Your task to perform on an android device: Clear all items from cart on walmart.com. Search for logitech g910 on walmart.com, select the first entry, and add it to the cart. Image 0: 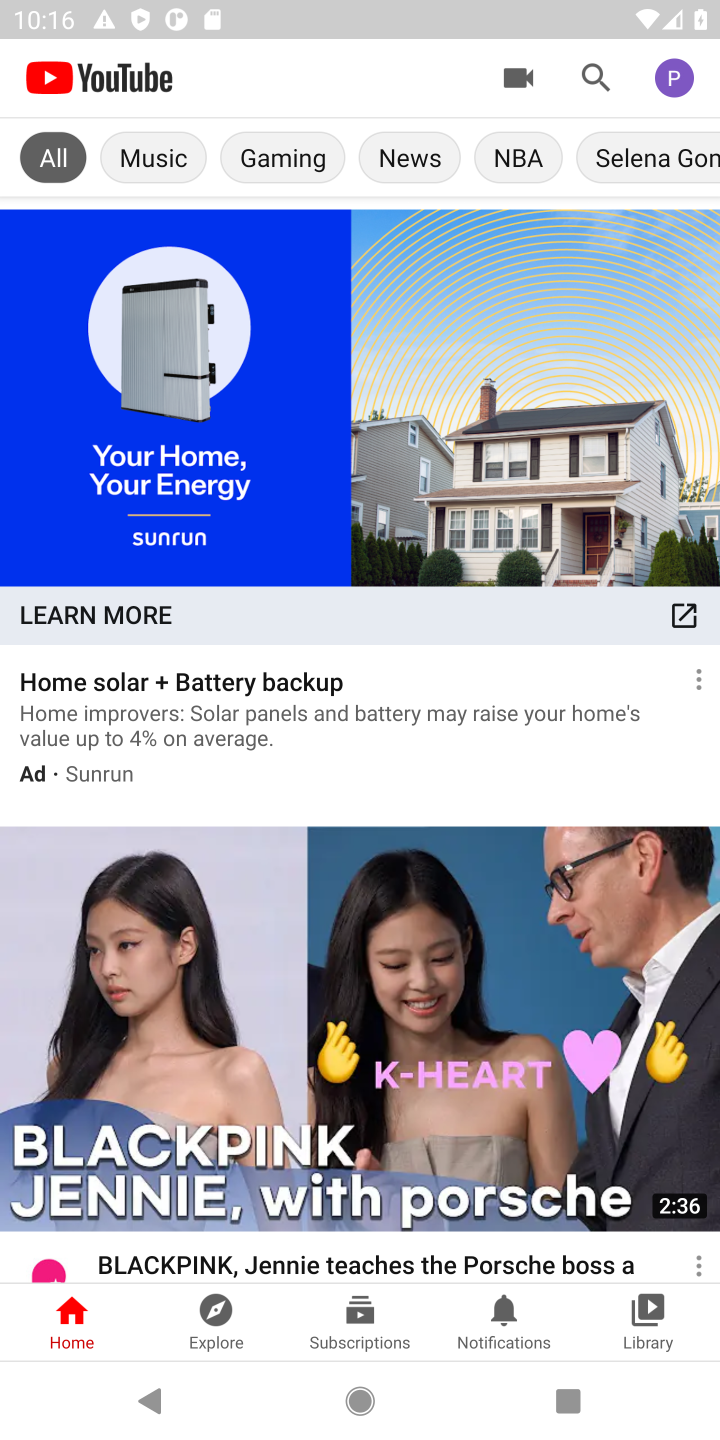
Step 0: press home button
Your task to perform on an android device: Clear all items from cart on walmart.com. Search for logitech g910 on walmart.com, select the first entry, and add it to the cart. Image 1: 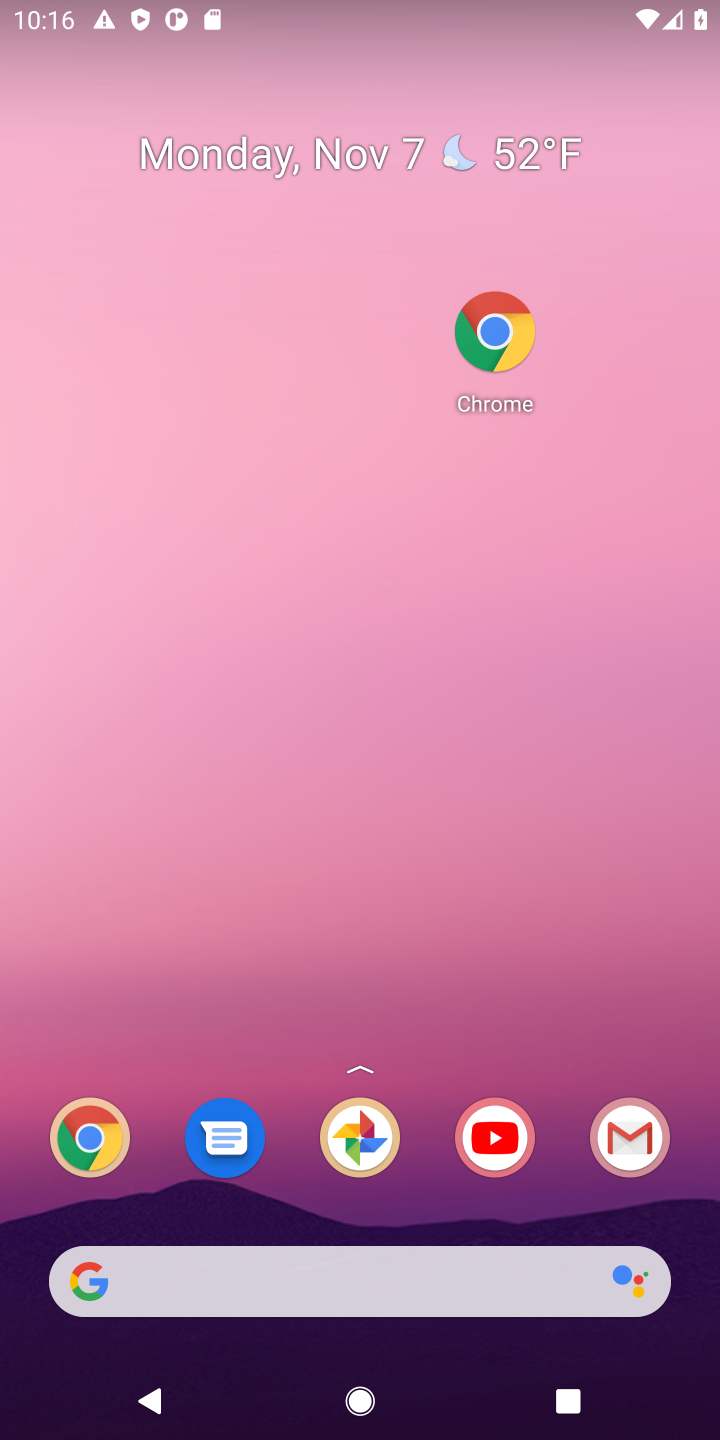
Step 1: drag from (409, 1217) to (220, 171)
Your task to perform on an android device: Clear all items from cart on walmart.com. Search for logitech g910 on walmart.com, select the first entry, and add it to the cart. Image 2: 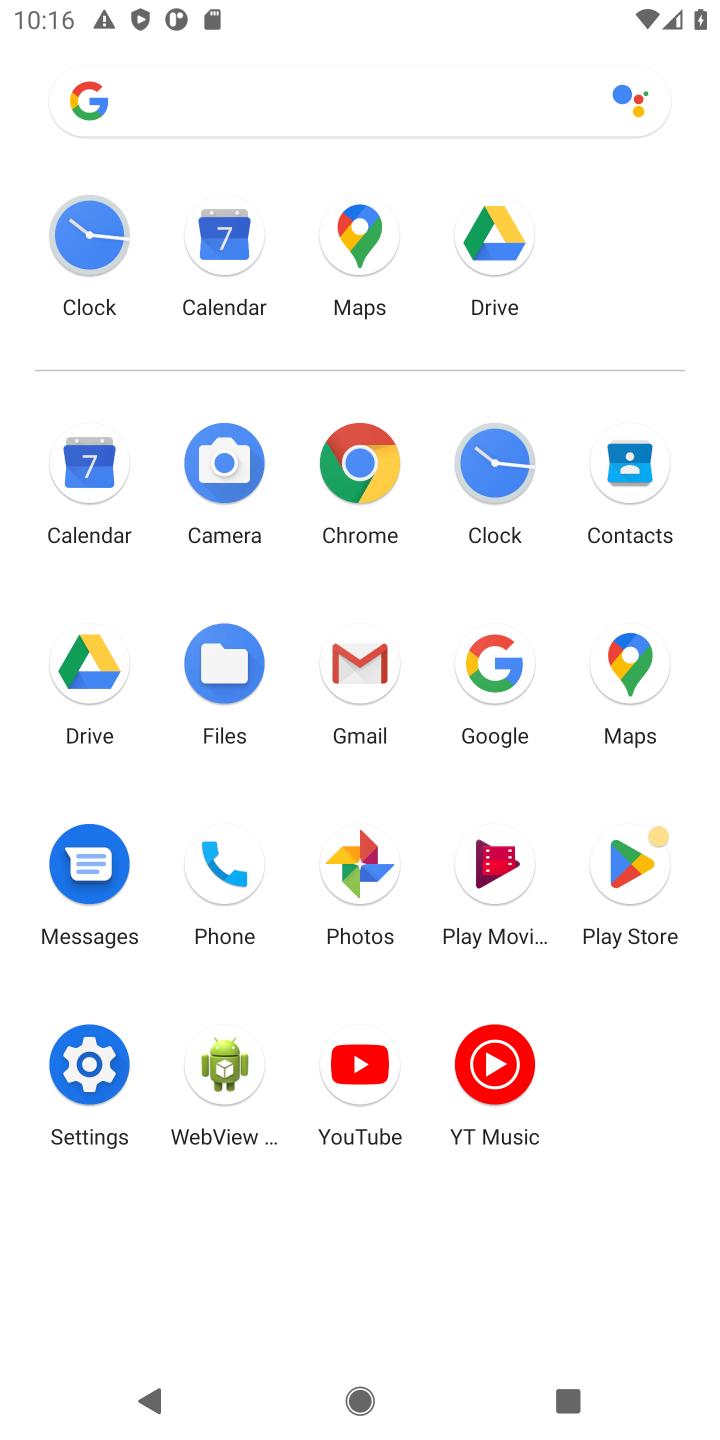
Step 2: click (354, 458)
Your task to perform on an android device: Clear all items from cart on walmart.com. Search for logitech g910 on walmart.com, select the first entry, and add it to the cart. Image 3: 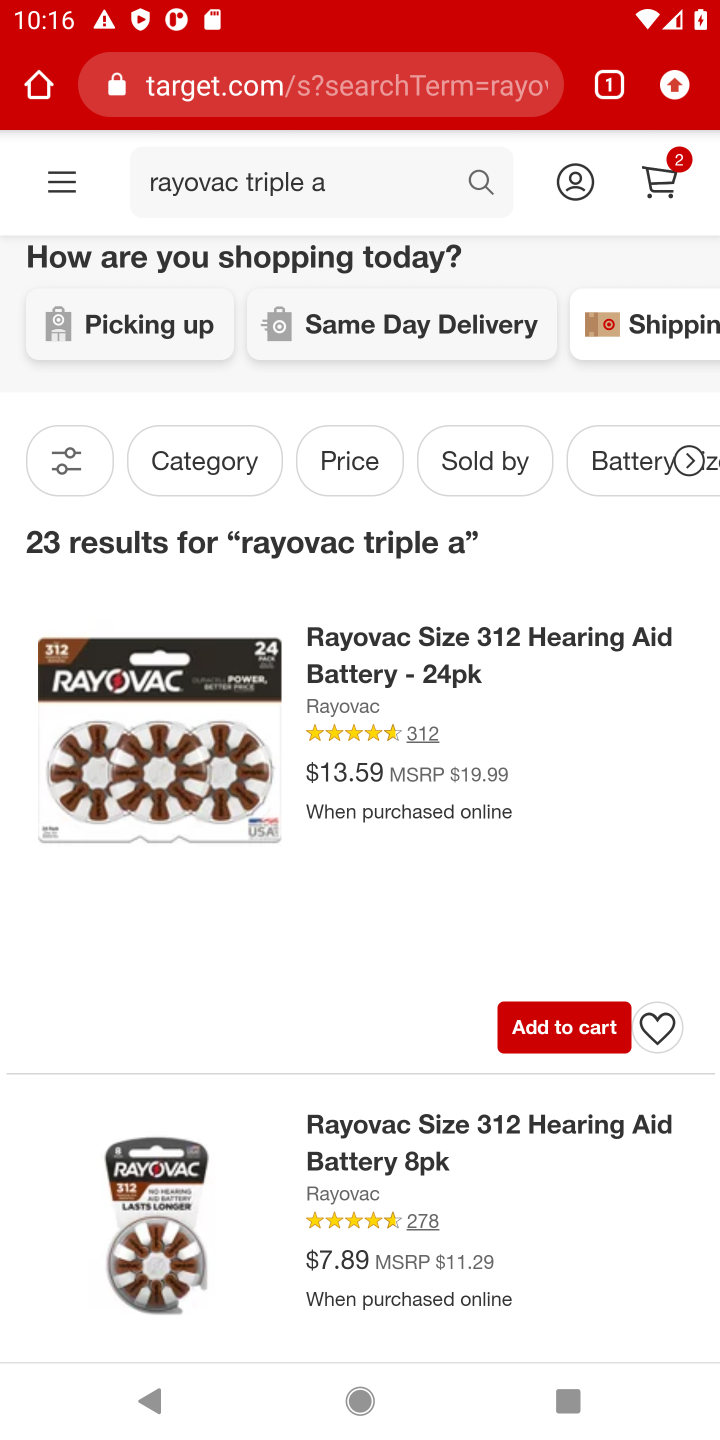
Step 3: click (398, 86)
Your task to perform on an android device: Clear all items from cart on walmart.com. Search for logitech g910 on walmart.com, select the first entry, and add it to the cart. Image 4: 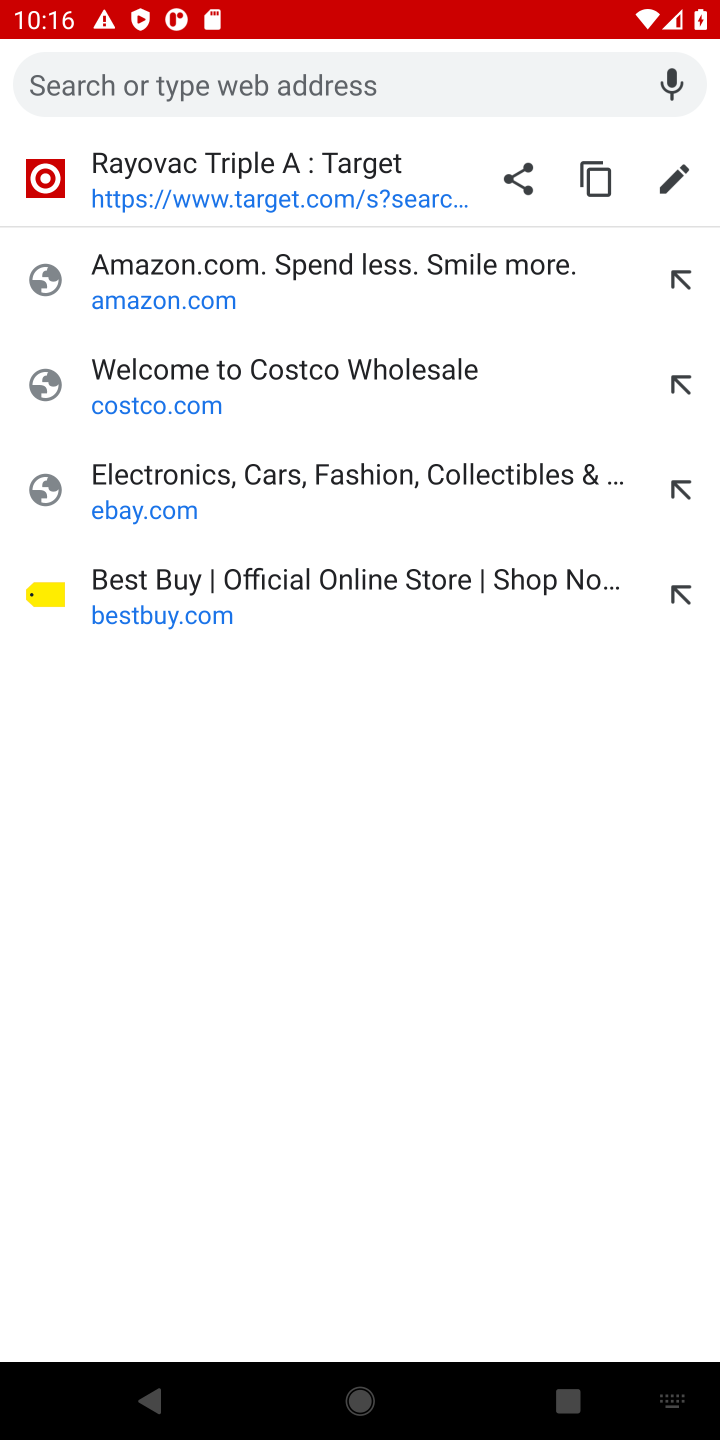
Step 4: type "walmart.com"
Your task to perform on an android device: Clear all items from cart on walmart.com. Search for logitech g910 on walmart.com, select the first entry, and add it to the cart. Image 5: 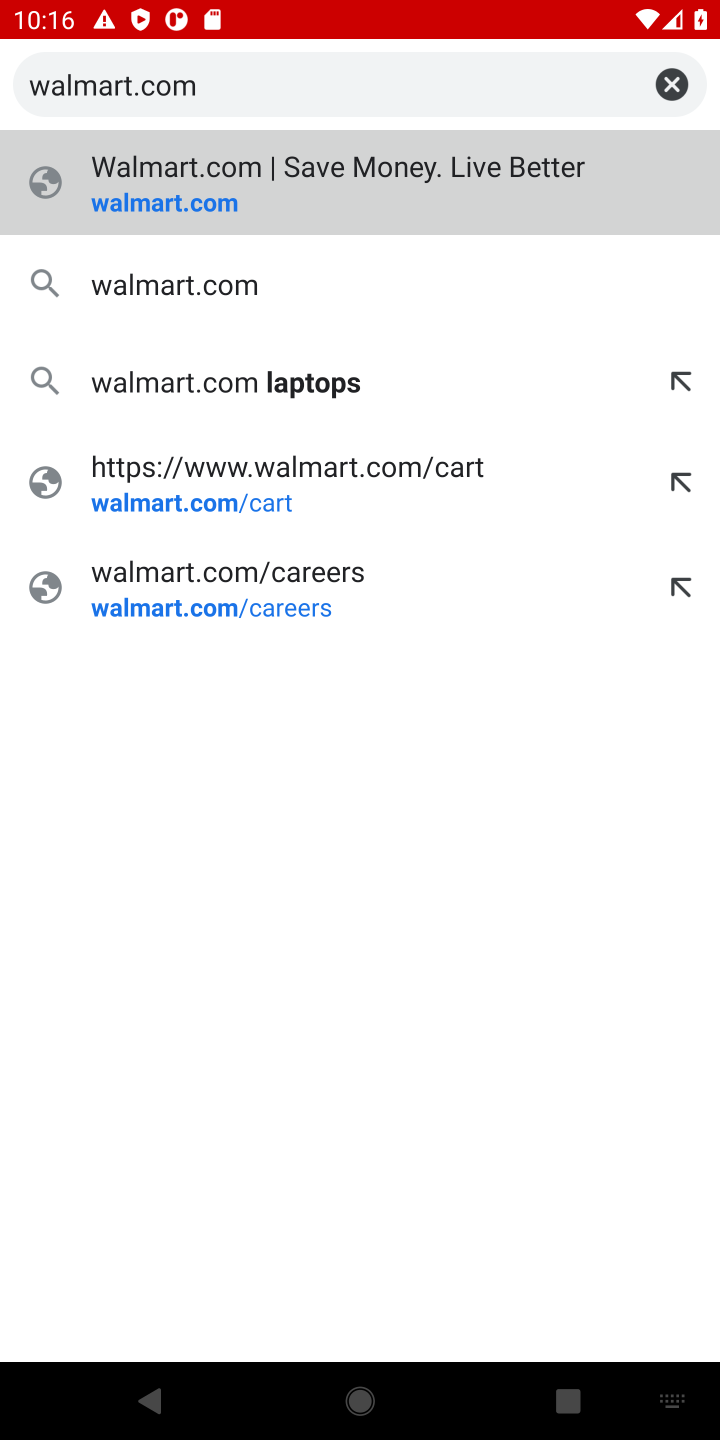
Step 5: press enter
Your task to perform on an android device: Clear all items from cart on walmart.com. Search for logitech g910 on walmart.com, select the first entry, and add it to the cart. Image 6: 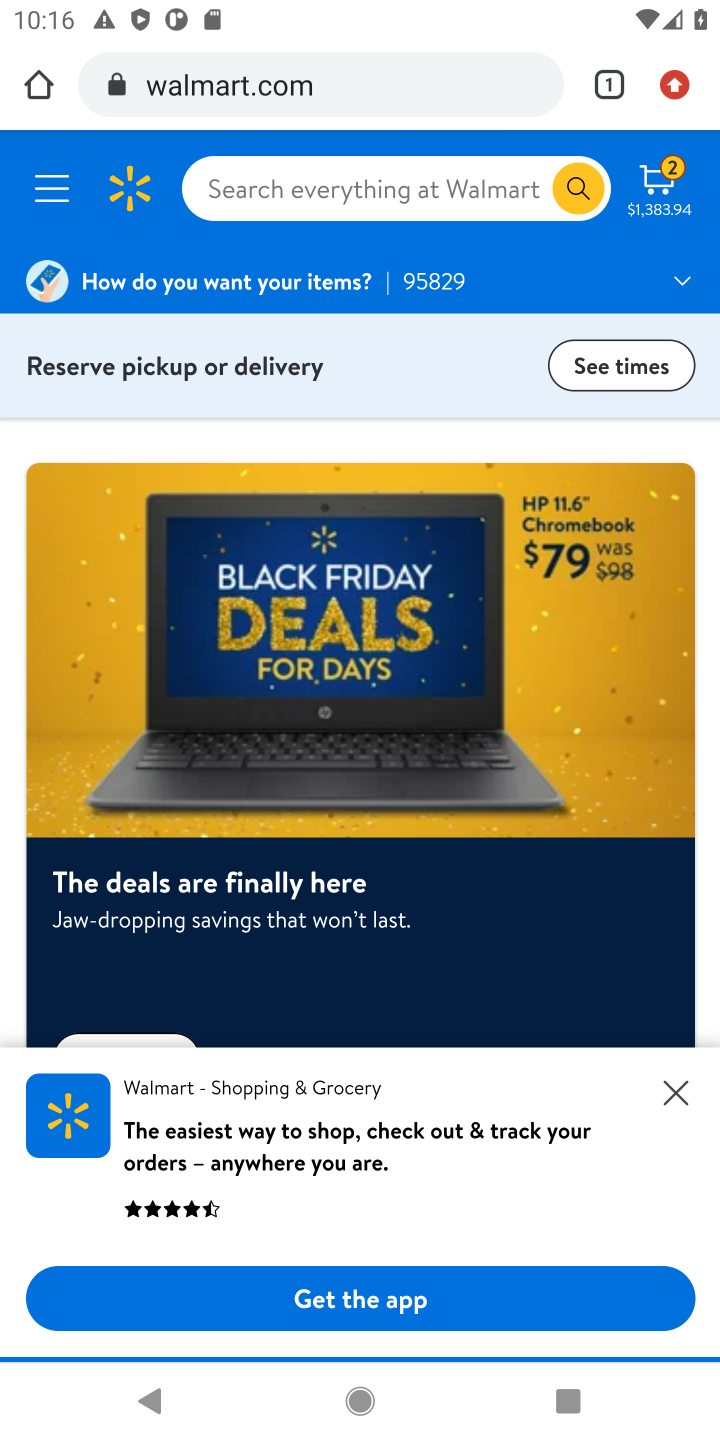
Step 6: click (658, 178)
Your task to perform on an android device: Clear all items from cart on walmart.com. Search for logitech g910 on walmart.com, select the first entry, and add it to the cart. Image 7: 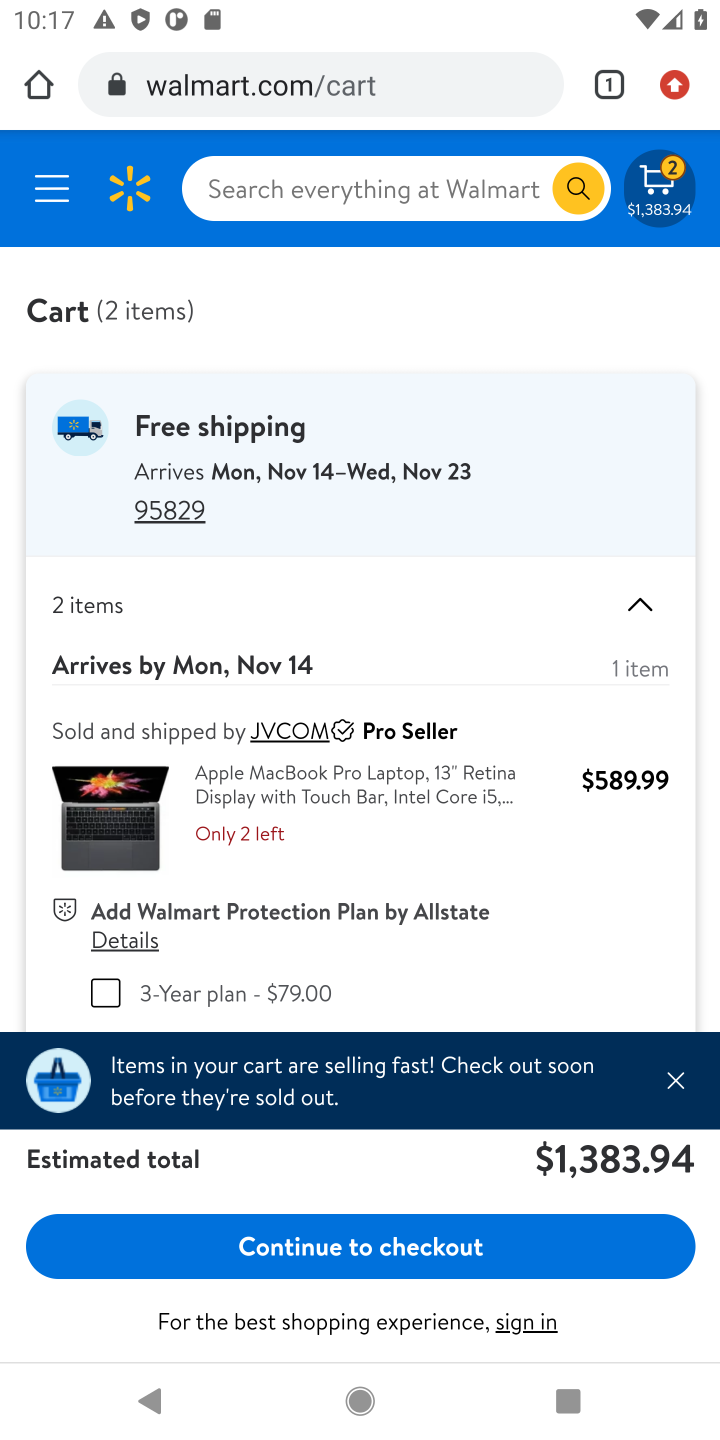
Step 7: drag from (365, 943) to (335, 373)
Your task to perform on an android device: Clear all items from cart on walmart.com. Search for logitech g910 on walmart.com, select the first entry, and add it to the cart. Image 8: 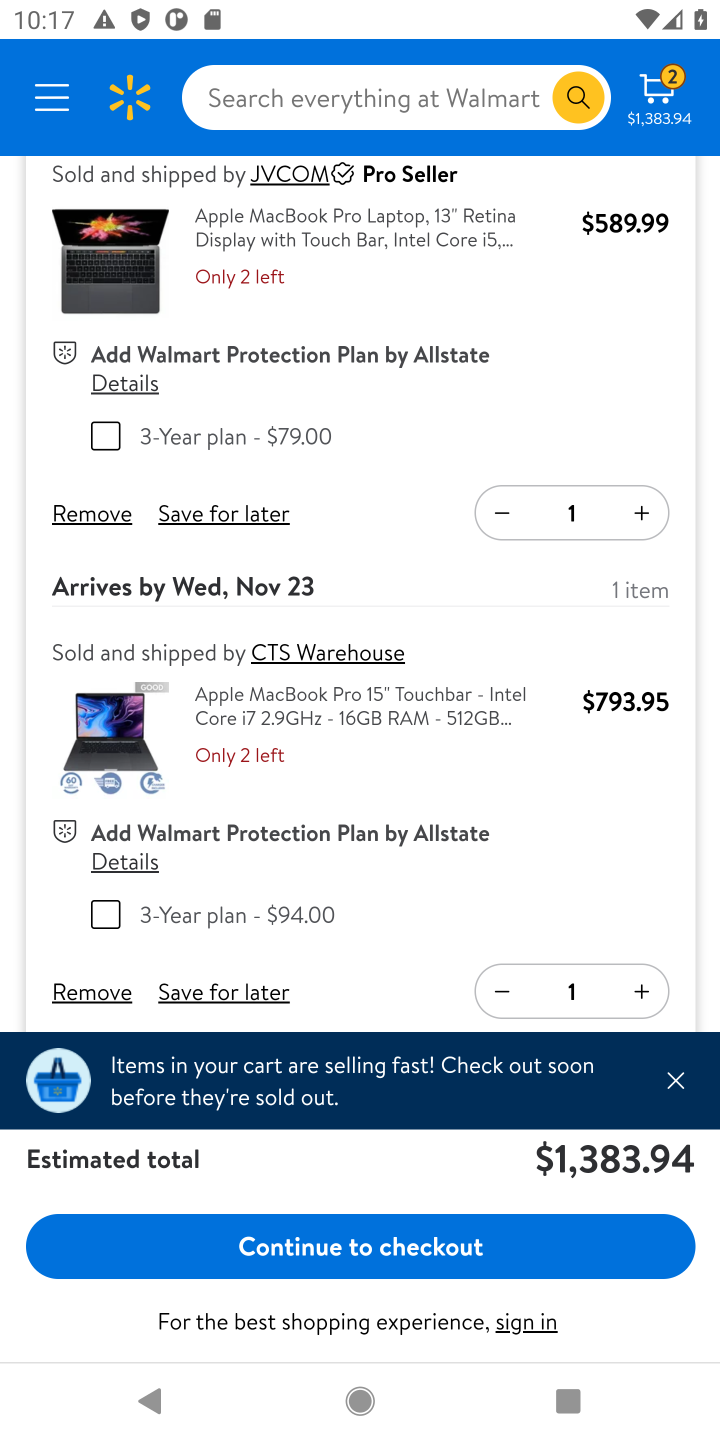
Step 8: click (100, 514)
Your task to perform on an android device: Clear all items from cart on walmart.com. Search for logitech g910 on walmart.com, select the first entry, and add it to the cart. Image 9: 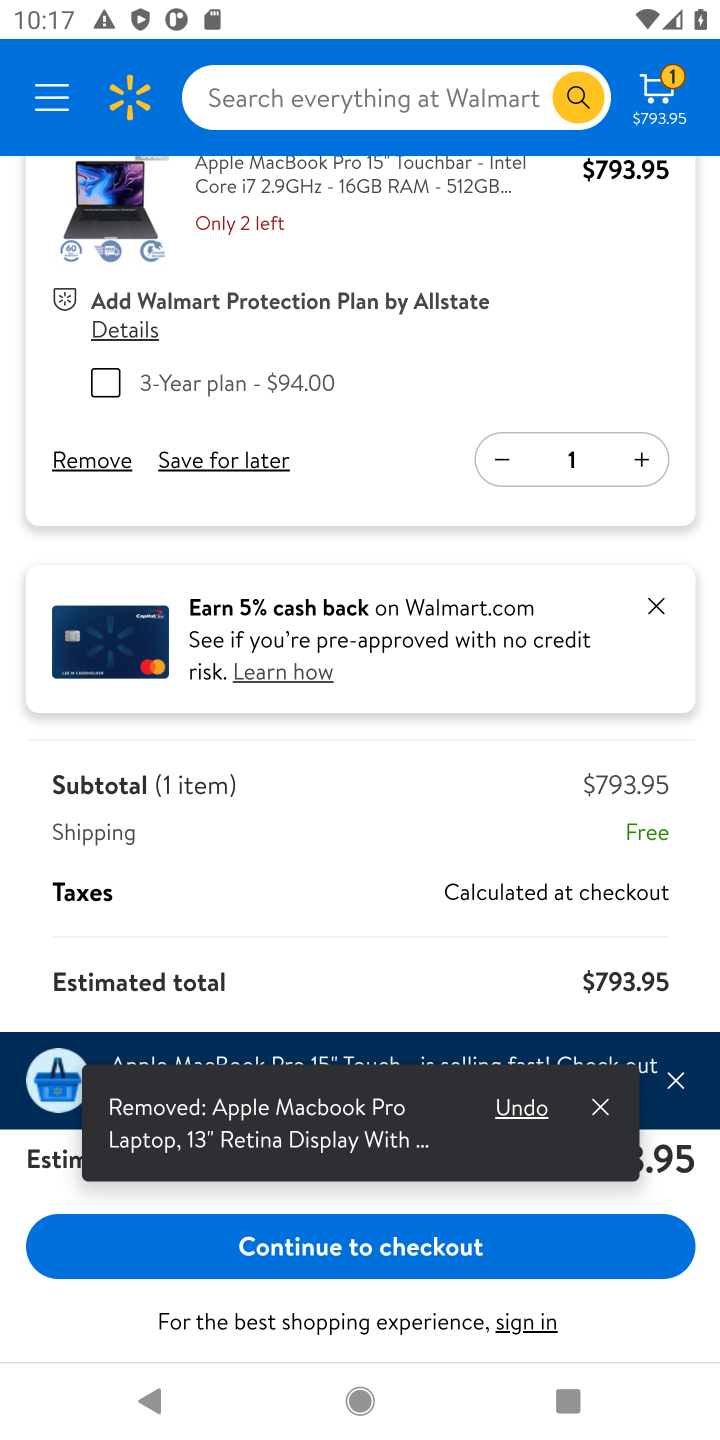
Step 9: click (111, 518)
Your task to perform on an android device: Clear all items from cart on walmart.com. Search for logitech g910 on walmart.com, select the first entry, and add it to the cart. Image 10: 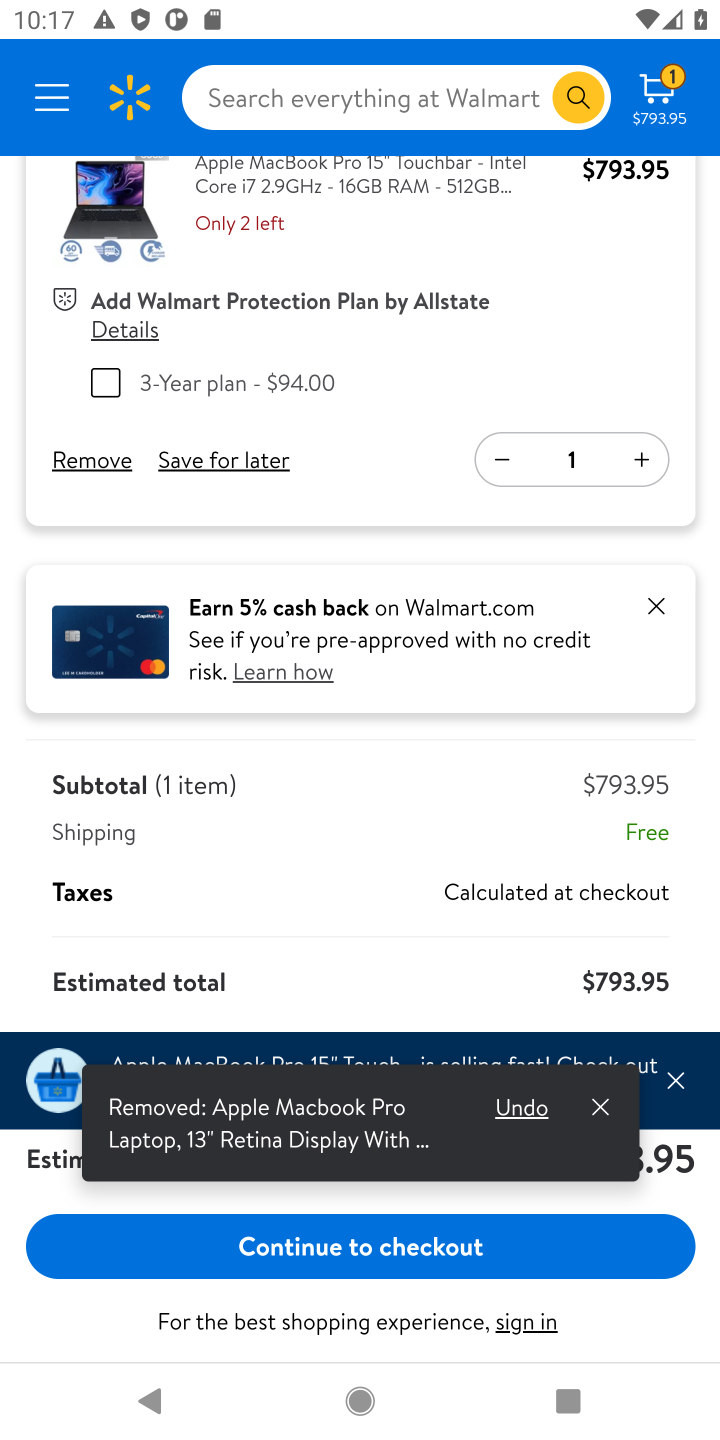
Step 10: click (111, 459)
Your task to perform on an android device: Clear all items from cart on walmart.com. Search for logitech g910 on walmart.com, select the first entry, and add it to the cart. Image 11: 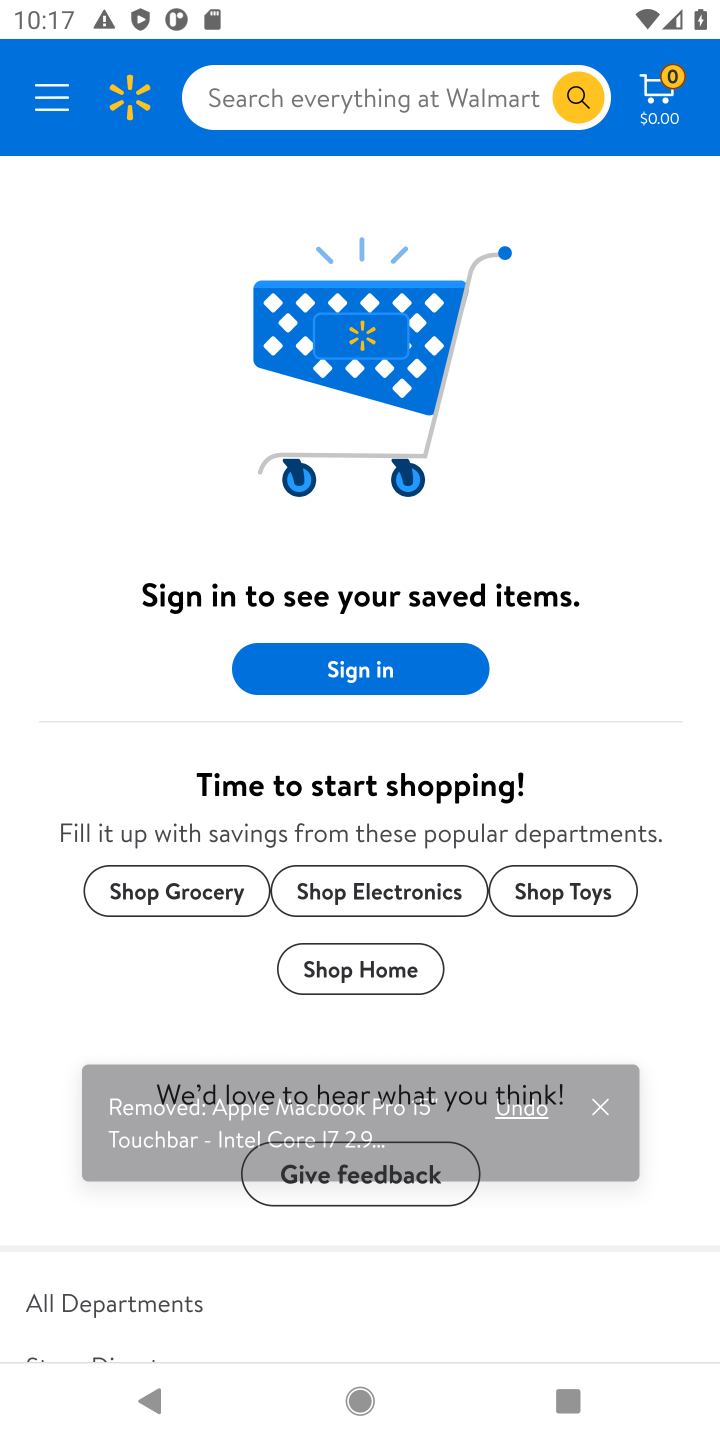
Step 11: click (454, 105)
Your task to perform on an android device: Clear all items from cart on walmart.com. Search for logitech g910 on walmart.com, select the first entry, and add it to the cart. Image 12: 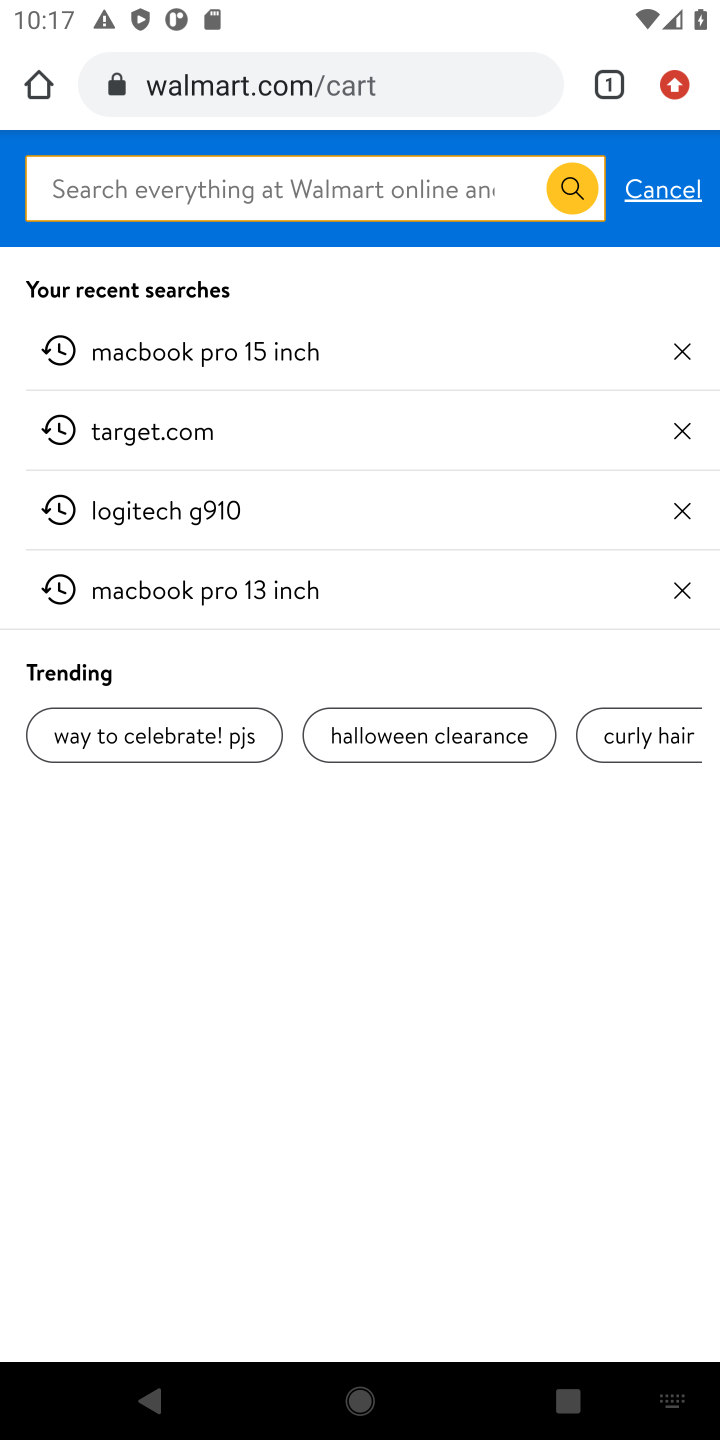
Step 12: type "logitech g910"
Your task to perform on an android device: Clear all items from cart on walmart.com. Search for logitech g910 on walmart.com, select the first entry, and add it to the cart. Image 13: 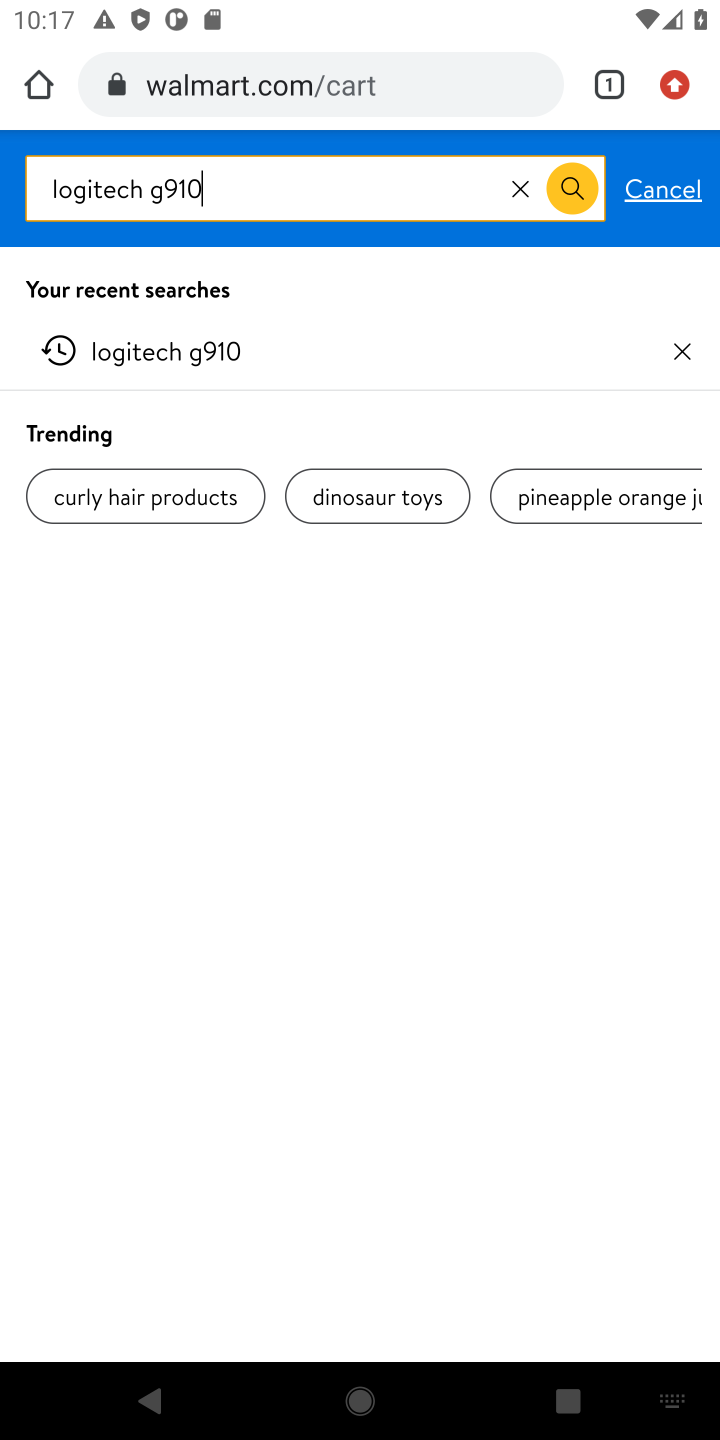
Step 13: press enter
Your task to perform on an android device: Clear all items from cart on walmart.com. Search for logitech g910 on walmart.com, select the first entry, and add it to the cart. Image 14: 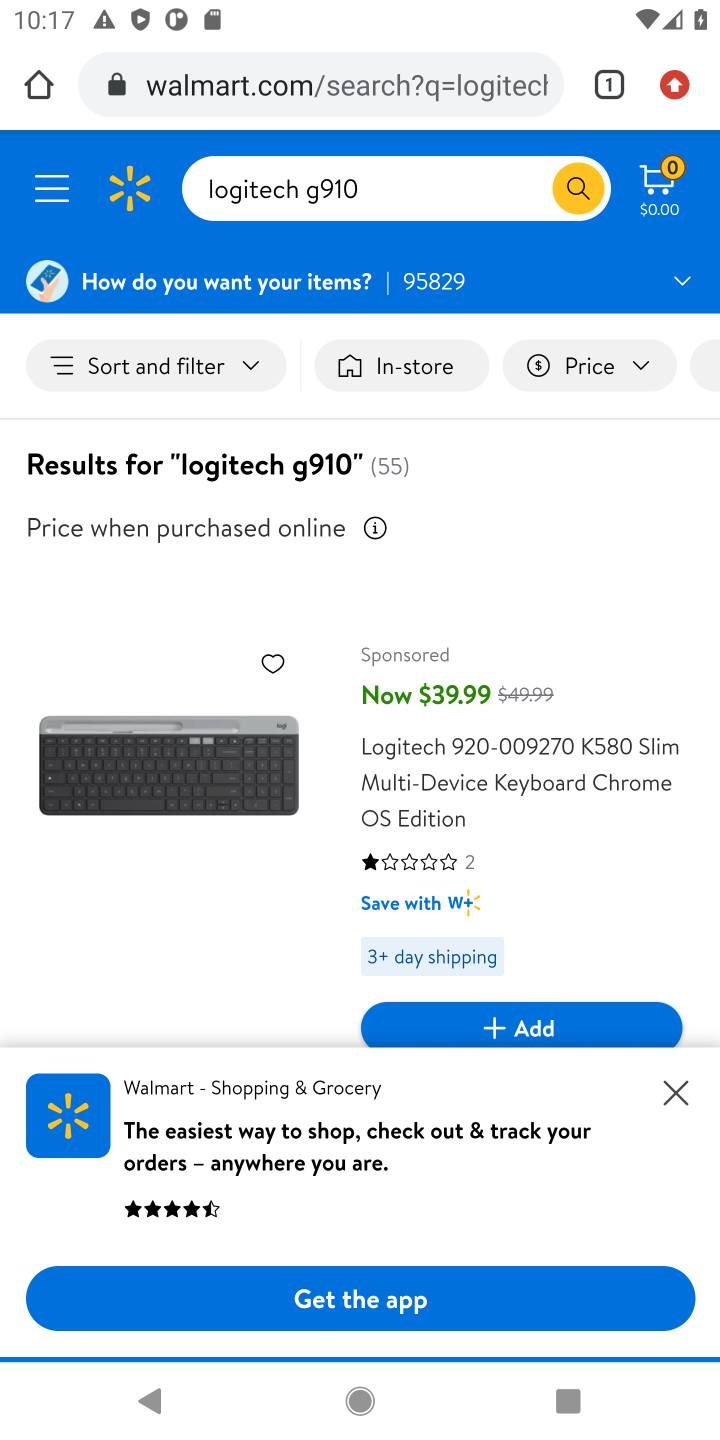
Step 14: drag from (315, 817) to (330, 194)
Your task to perform on an android device: Clear all items from cart on walmart.com. Search for logitech g910 on walmart.com, select the first entry, and add it to the cart. Image 15: 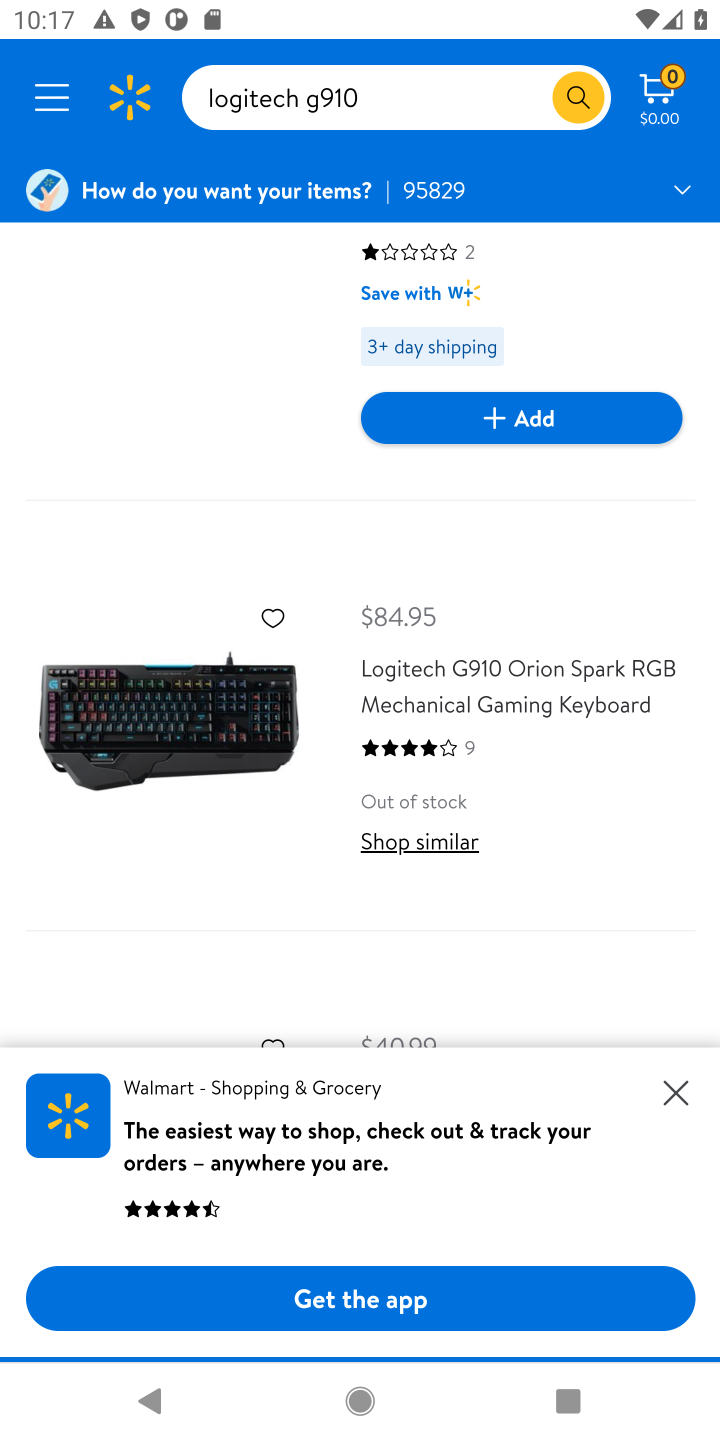
Step 15: drag from (274, 853) to (249, 416)
Your task to perform on an android device: Clear all items from cart on walmart.com. Search for logitech g910 on walmart.com, select the first entry, and add it to the cart. Image 16: 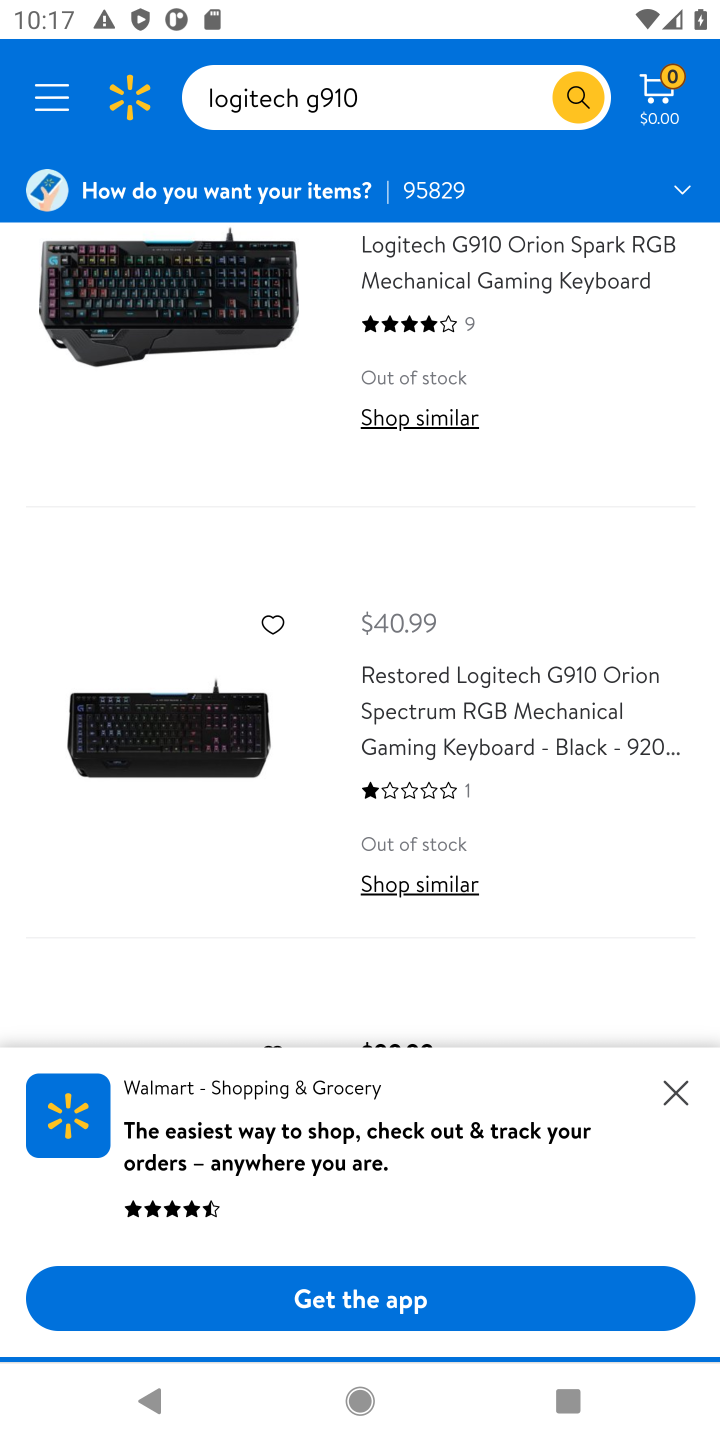
Step 16: drag from (261, 391) to (341, 1131)
Your task to perform on an android device: Clear all items from cart on walmart.com. Search for logitech g910 on walmart.com, select the first entry, and add it to the cart. Image 17: 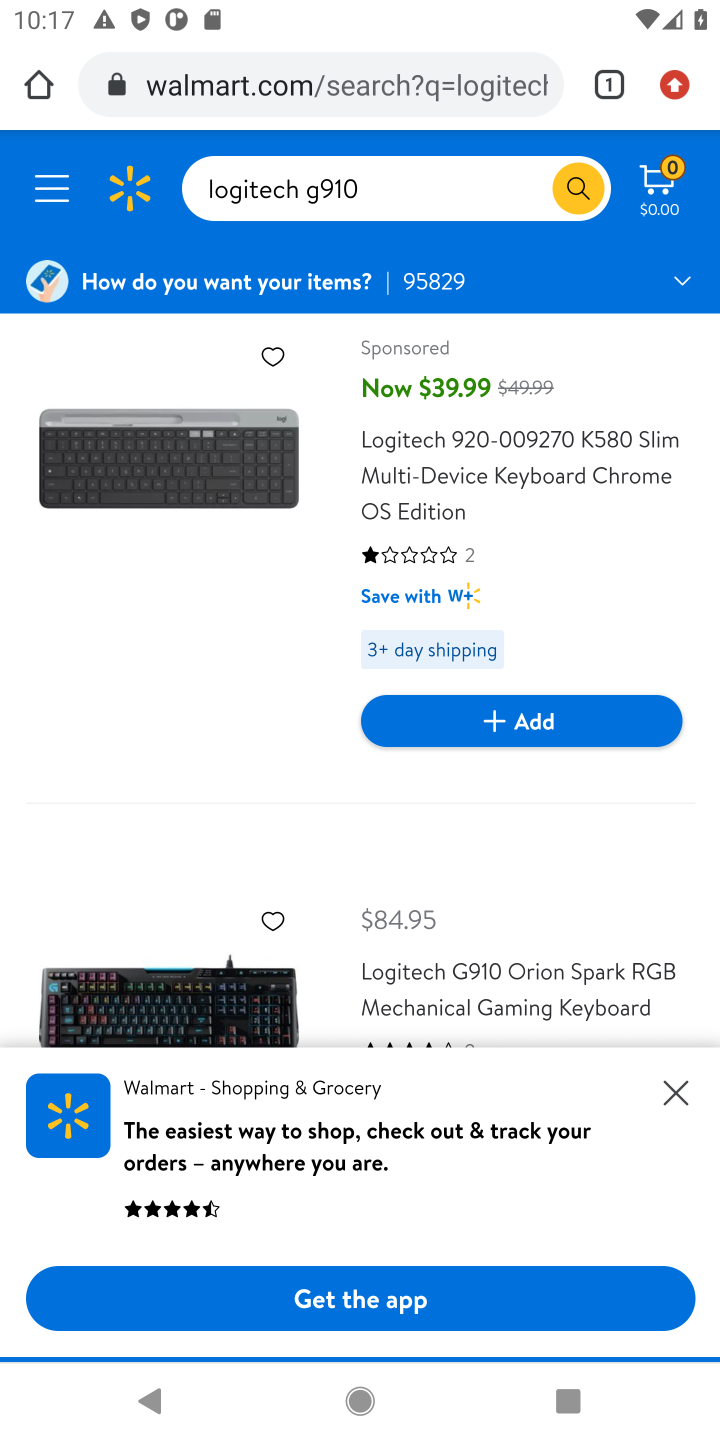
Step 17: drag from (202, 555) to (369, 195)
Your task to perform on an android device: Clear all items from cart on walmart.com. Search for logitech g910 on walmart.com, select the first entry, and add it to the cart. Image 18: 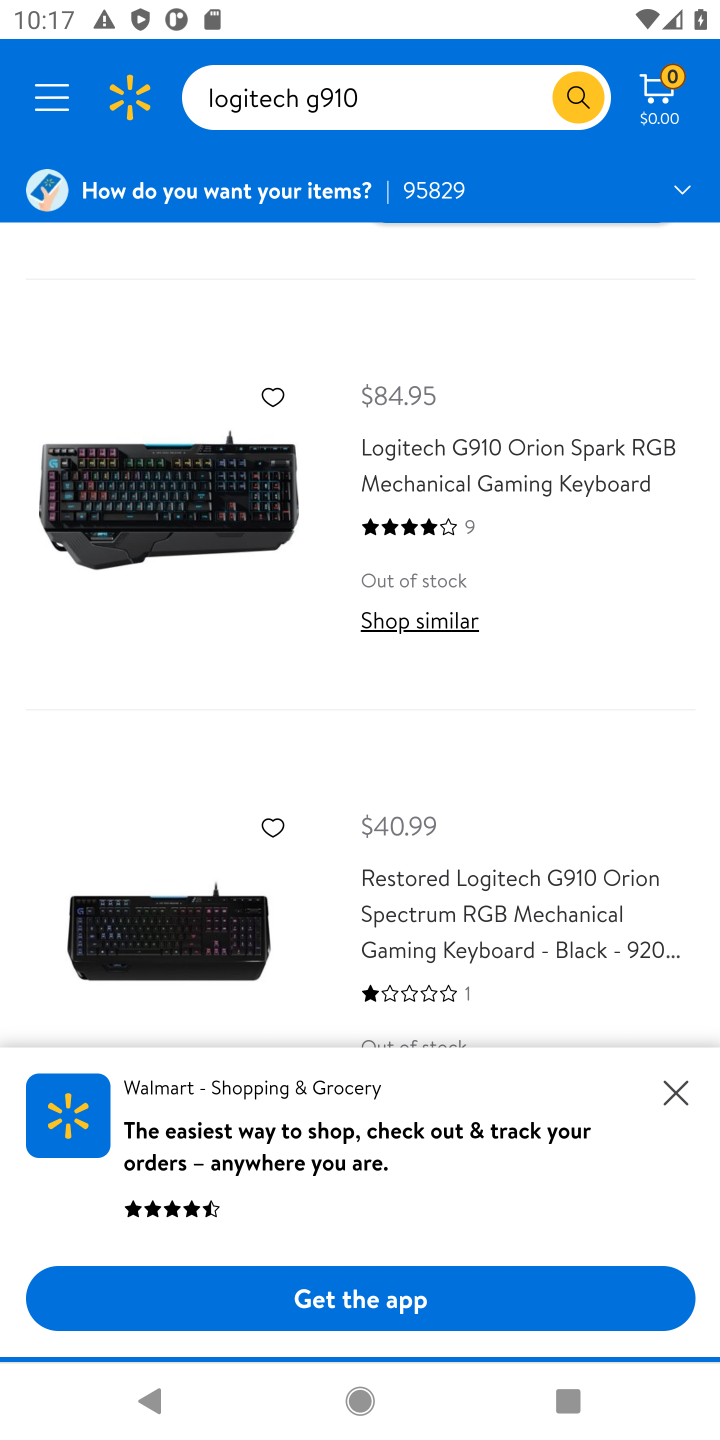
Step 18: drag from (386, 748) to (517, 189)
Your task to perform on an android device: Clear all items from cart on walmart.com. Search for logitech g910 on walmart.com, select the first entry, and add it to the cart. Image 19: 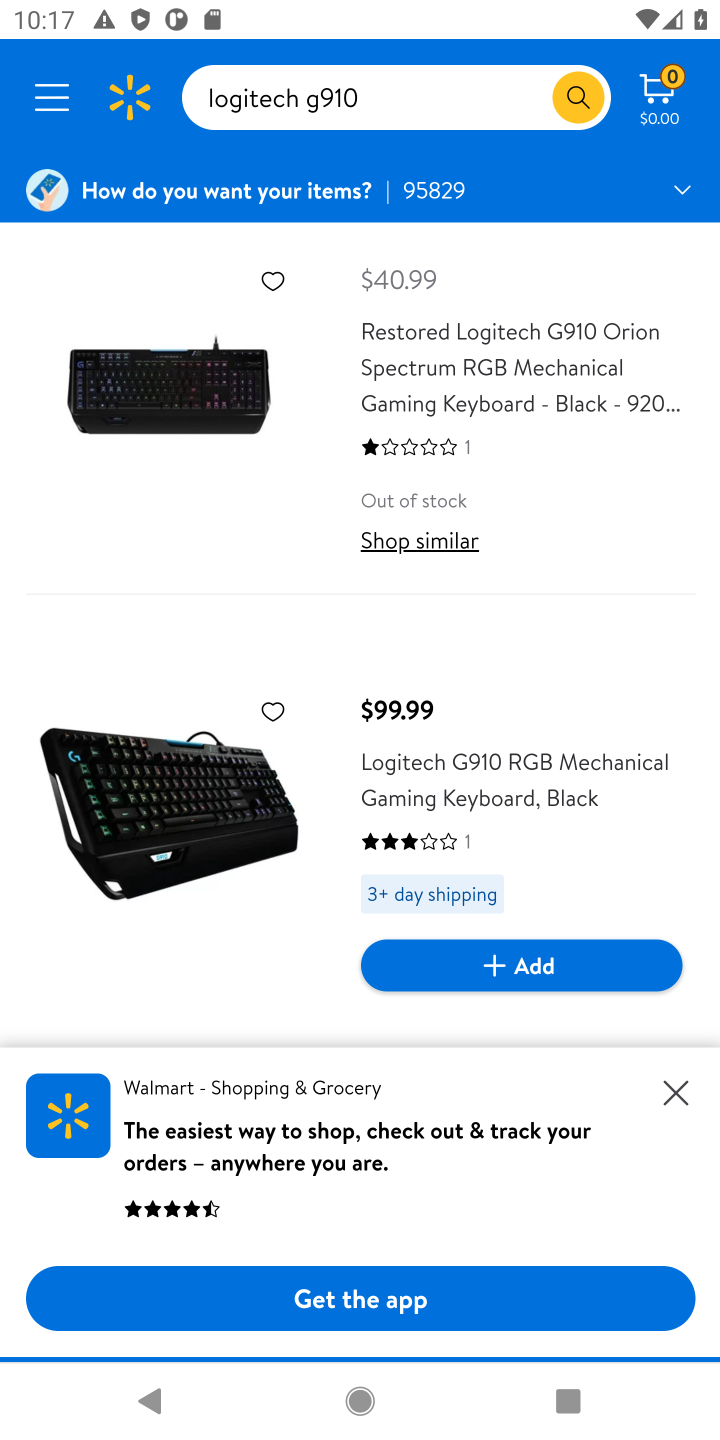
Step 19: drag from (254, 497) to (257, 1111)
Your task to perform on an android device: Clear all items from cart on walmart.com. Search for logitech g910 on walmart.com, select the first entry, and add it to the cart. Image 20: 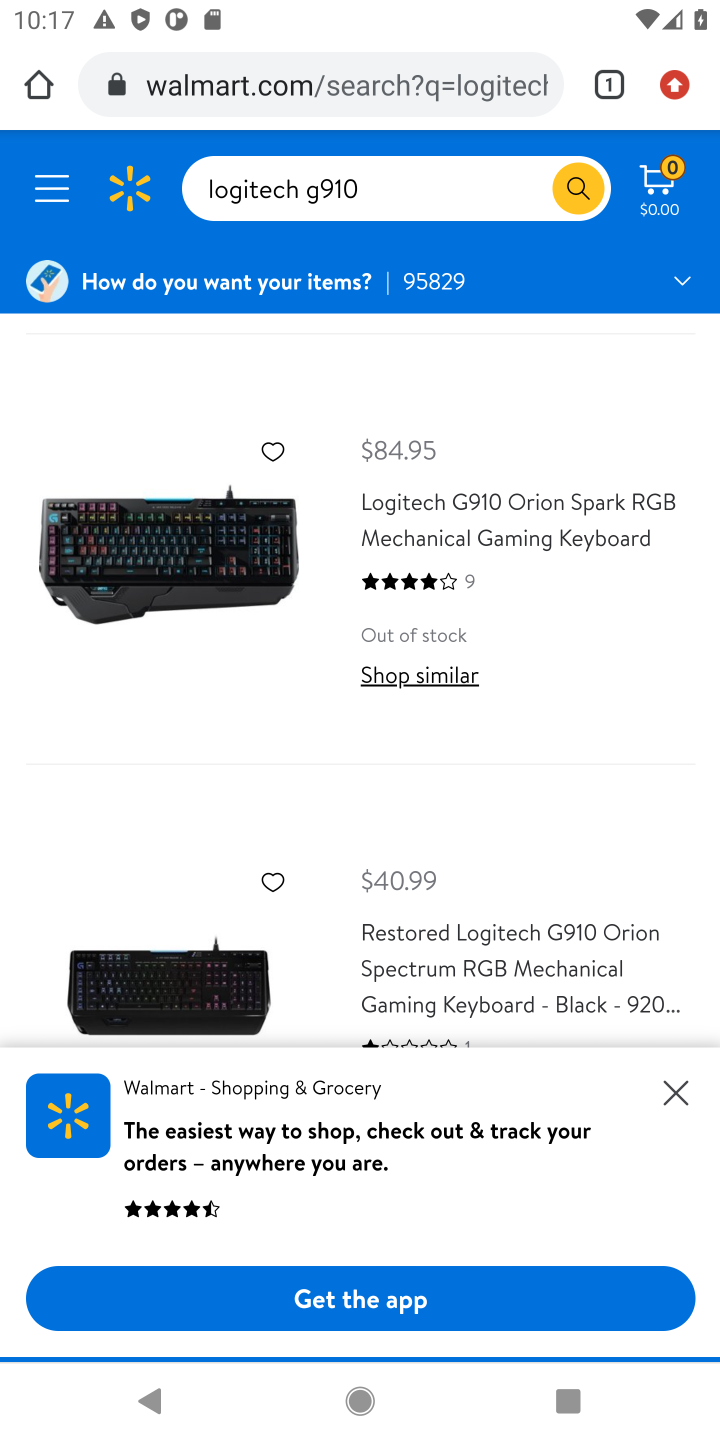
Step 20: drag from (208, 789) to (292, 1232)
Your task to perform on an android device: Clear all items from cart on walmart.com. Search for logitech g910 on walmart.com, select the first entry, and add it to the cart. Image 21: 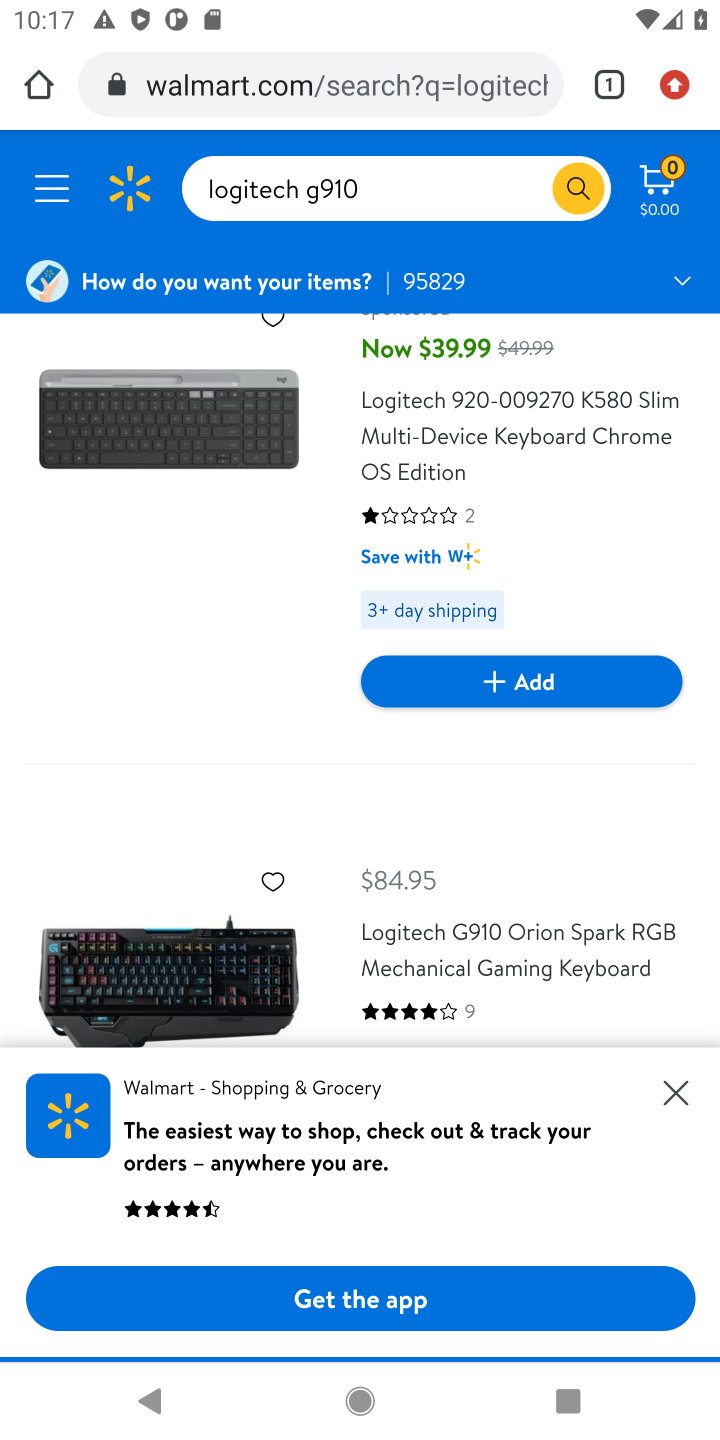
Step 21: drag from (181, 801) to (193, 450)
Your task to perform on an android device: Clear all items from cart on walmart.com. Search for logitech g910 on walmart.com, select the first entry, and add it to the cart. Image 22: 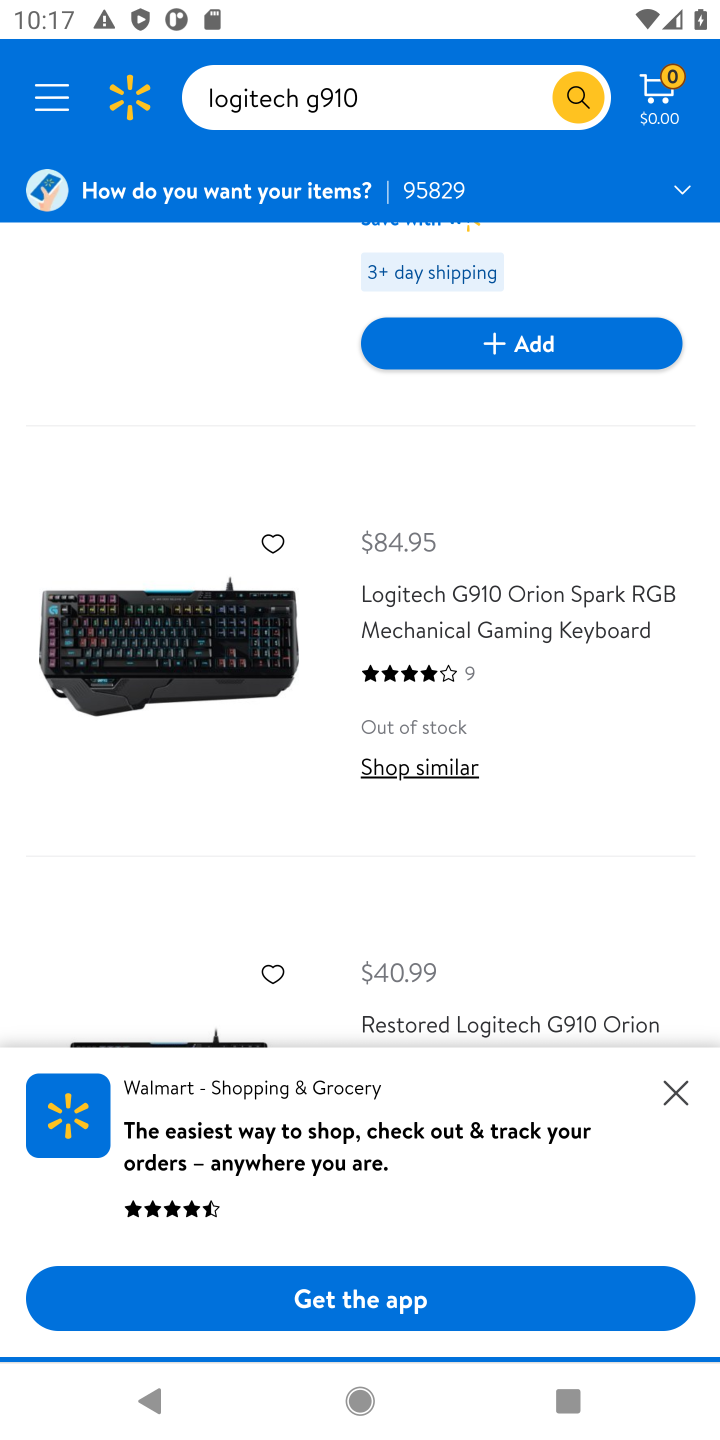
Step 22: click (446, 604)
Your task to perform on an android device: Clear all items from cart on walmart.com. Search for logitech g910 on walmart.com, select the first entry, and add it to the cart. Image 23: 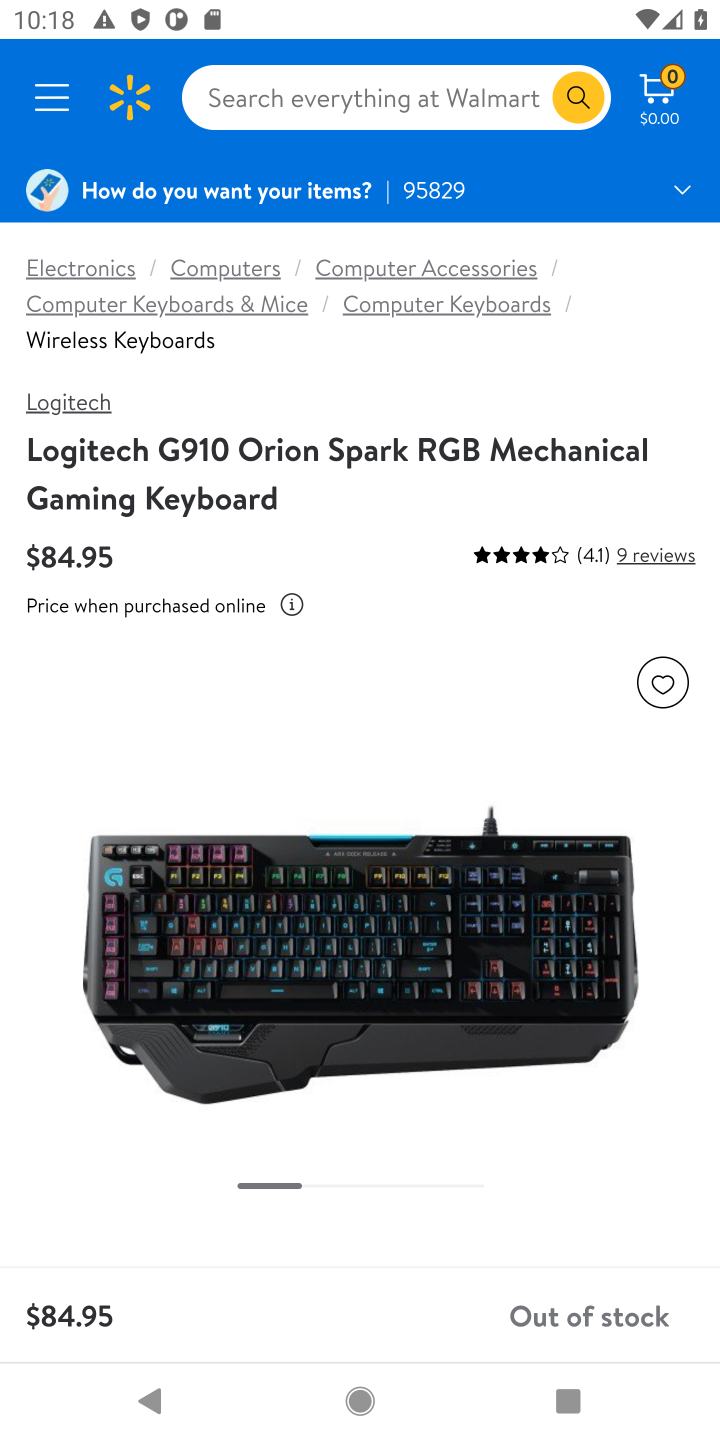
Step 23: task complete